Your task to perform on an android device: open sync settings in chrome Image 0: 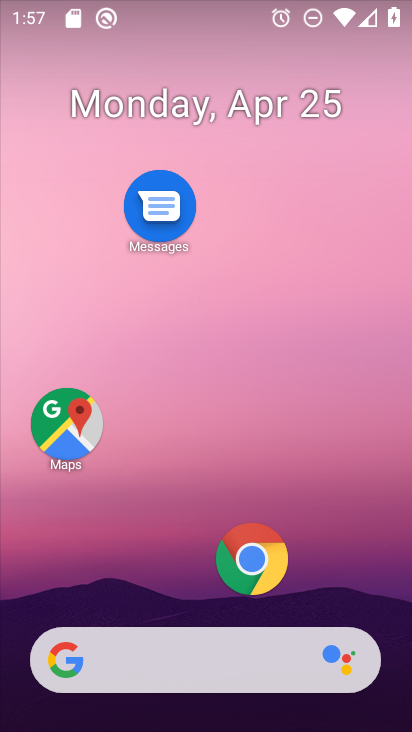
Step 0: click (250, 553)
Your task to perform on an android device: open sync settings in chrome Image 1: 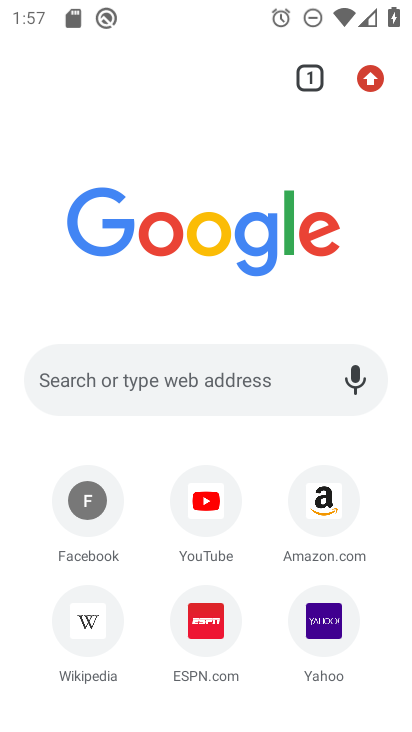
Step 1: click (372, 81)
Your task to perform on an android device: open sync settings in chrome Image 2: 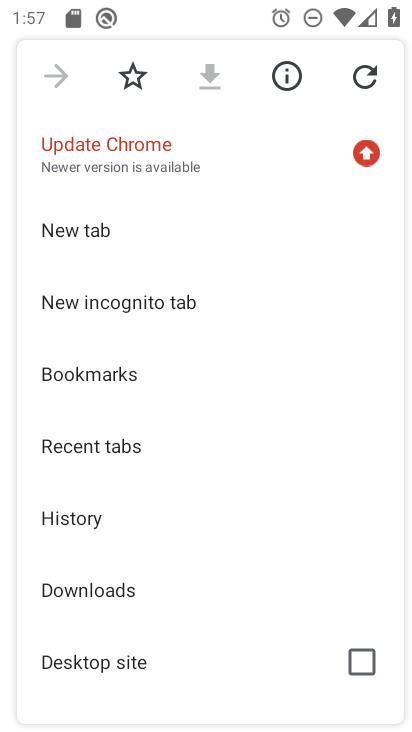
Step 2: drag from (261, 523) to (288, 138)
Your task to perform on an android device: open sync settings in chrome Image 3: 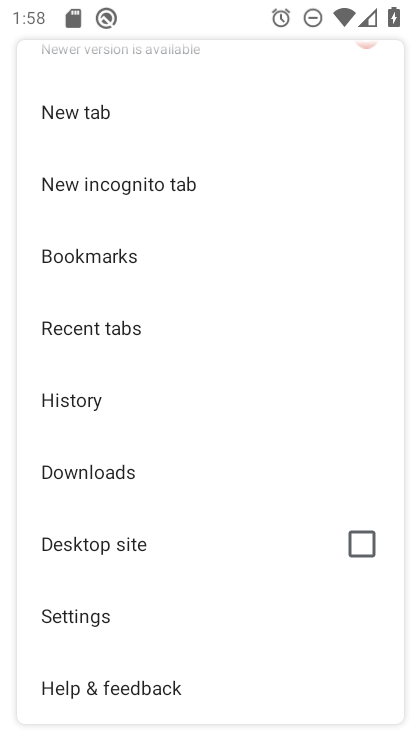
Step 3: click (123, 610)
Your task to perform on an android device: open sync settings in chrome Image 4: 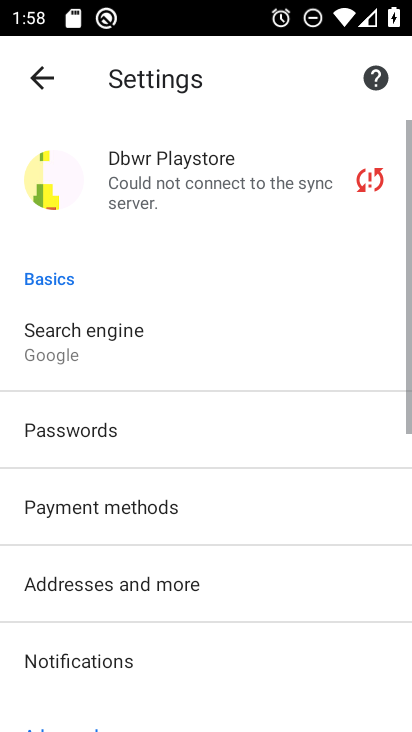
Step 4: drag from (264, 537) to (302, 168)
Your task to perform on an android device: open sync settings in chrome Image 5: 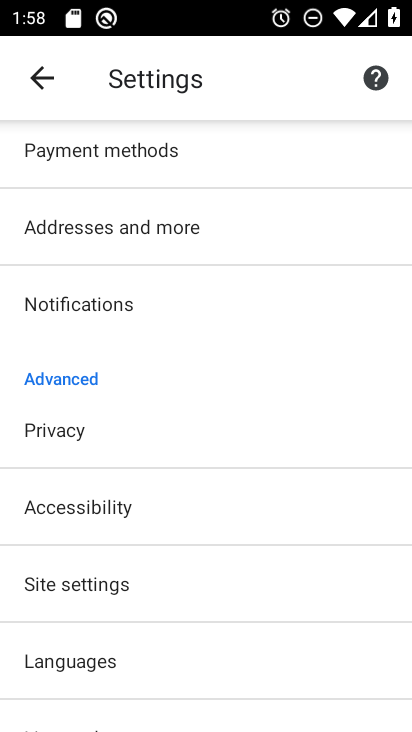
Step 5: drag from (162, 608) to (283, 172)
Your task to perform on an android device: open sync settings in chrome Image 6: 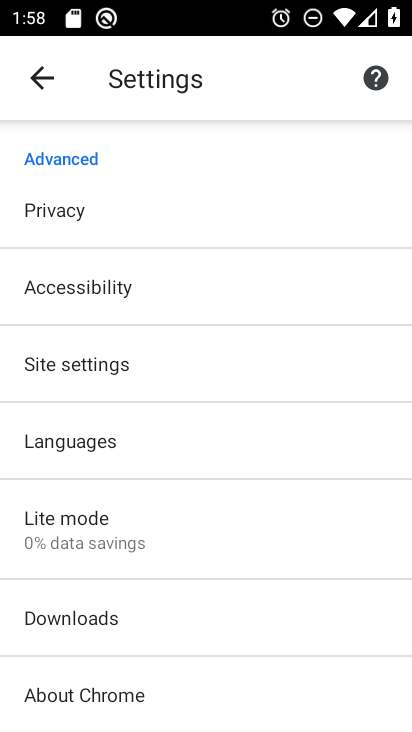
Step 6: drag from (145, 357) to (156, 591)
Your task to perform on an android device: open sync settings in chrome Image 7: 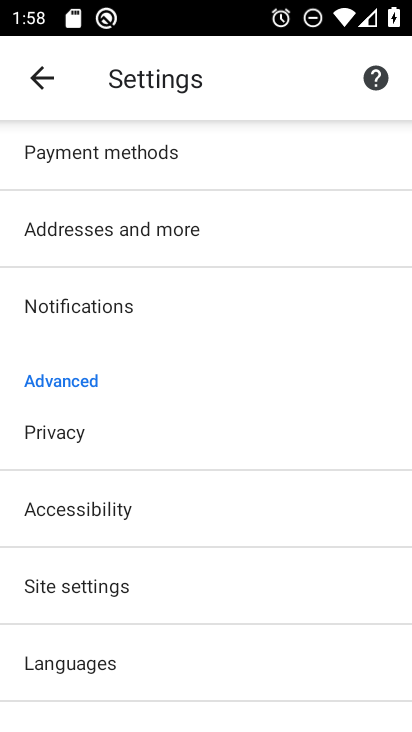
Step 7: click (65, 598)
Your task to perform on an android device: open sync settings in chrome Image 8: 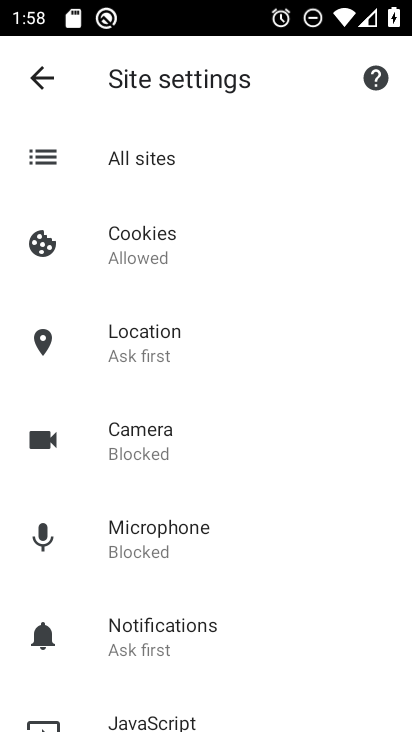
Step 8: drag from (266, 596) to (293, 241)
Your task to perform on an android device: open sync settings in chrome Image 9: 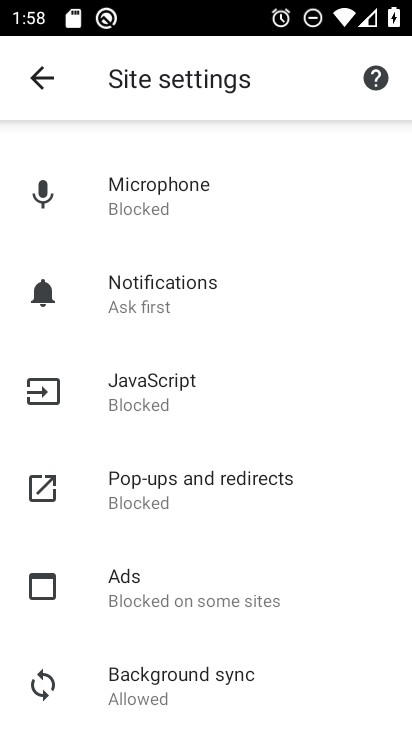
Step 9: click (142, 692)
Your task to perform on an android device: open sync settings in chrome Image 10: 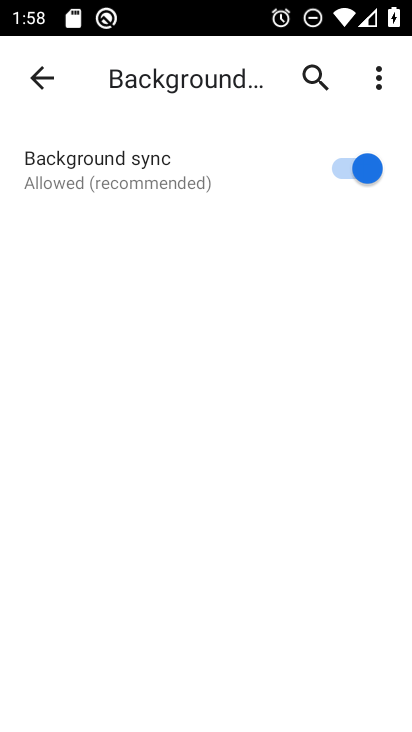
Step 10: task complete